Your task to perform on an android device: Go to calendar. Show me events next week Image 0: 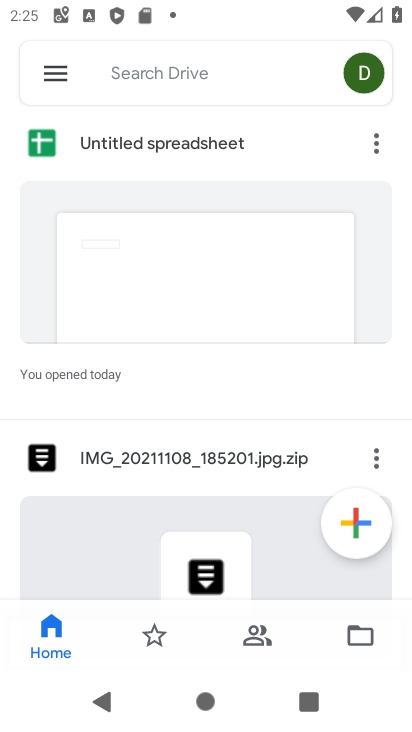
Step 0: press home button
Your task to perform on an android device: Go to calendar. Show me events next week Image 1: 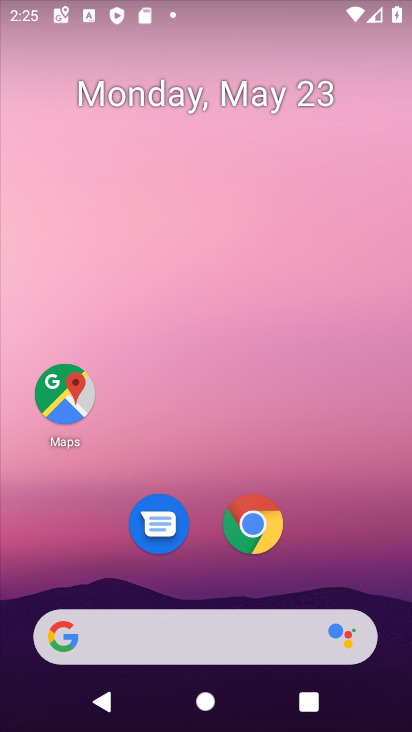
Step 1: drag from (206, 456) to (233, 10)
Your task to perform on an android device: Go to calendar. Show me events next week Image 2: 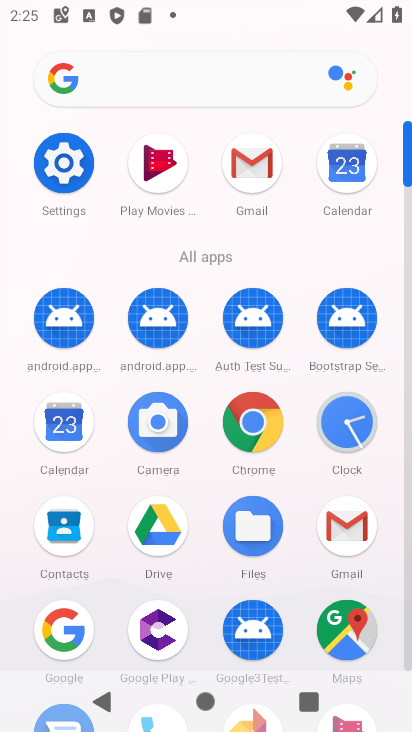
Step 2: click (65, 406)
Your task to perform on an android device: Go to calendar. Show me events next week Image 3: 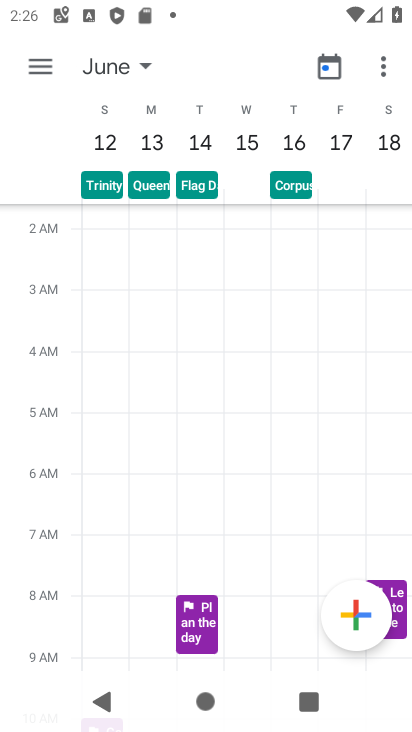
Step 3: task complete